Your task to perform on an android device: toggle location history Image 0: 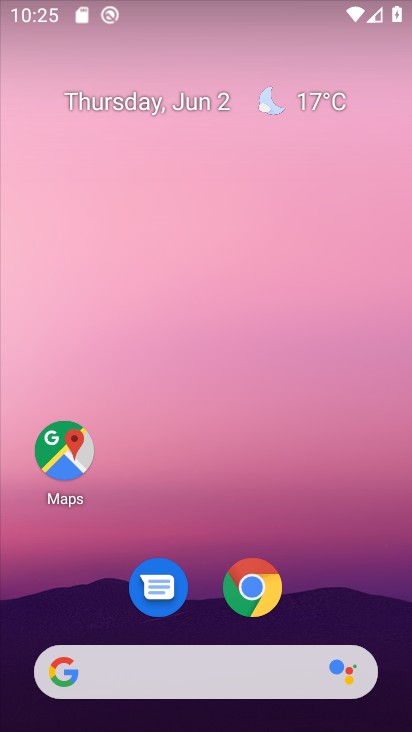
Step 0: drag from (381, 555) to (363, 161)
Your task to perform on an android device: toggle location history Image 1: 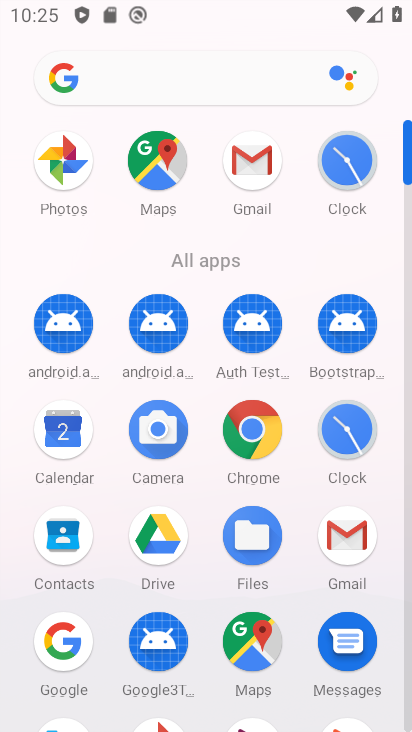
Step 1: drag from (304, 648) to (294, 374)
Your task to perform on an android device: toggle location history Image 2: 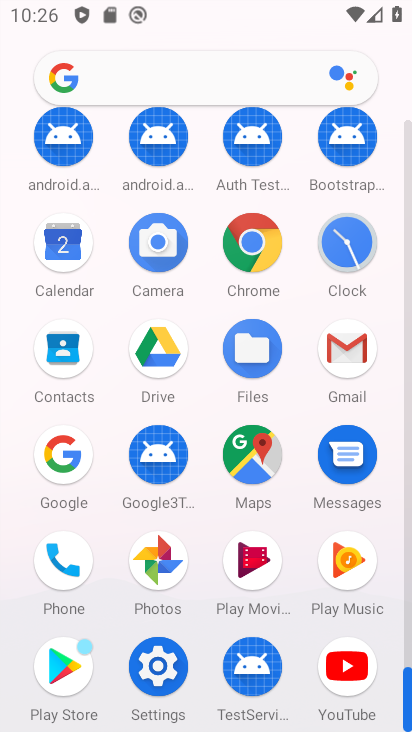
Step 2: click (167, 675)
Your task to perform on an android device: toggle location history Image 3: 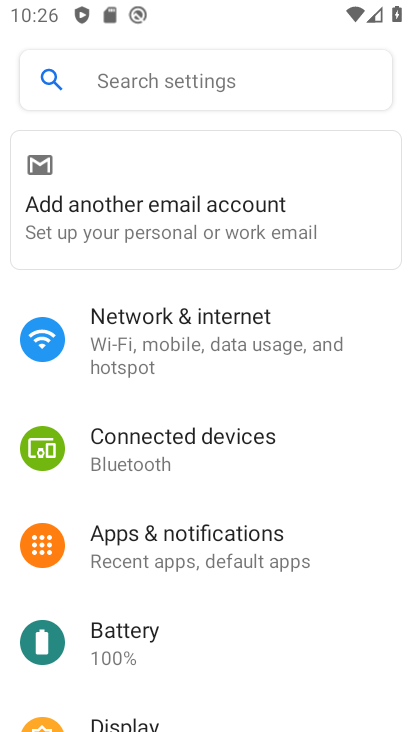
Step 3: drag from (246, 684) to (291, 365)
Your task to perform on an android device: toggle location history Image 4: 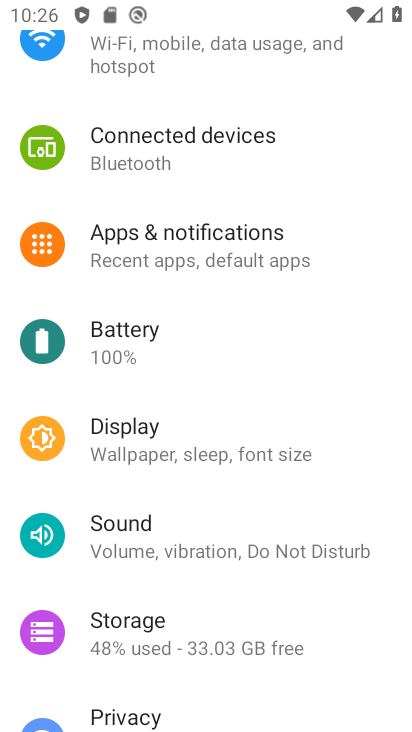
Step 4: drag from (265, 636) to (266, 378)
Your task to perform on an android device: toggle location history Image 5: 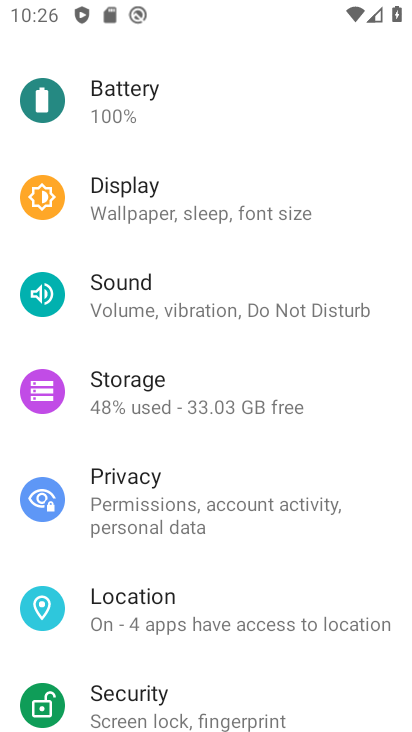
Step 5: click (219, 622)
Your task to perform on an android device: toggle location history Image 6: 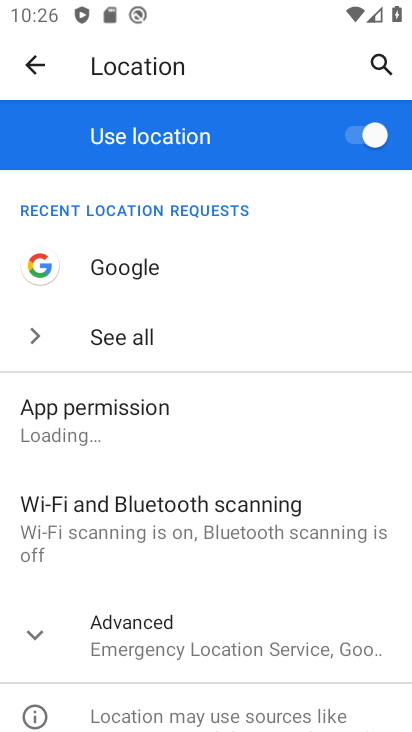
Step 6: drag from (269, 629) to (276, 333)
Your task to perform on an android device: toggle location history Image 7: 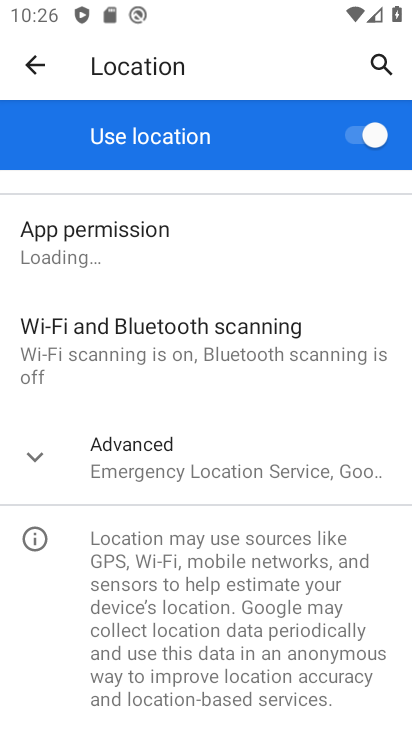
Step 7: drag from (265, 646) to (270, 328)
Your task to perform on an android device: toggle location history Image 8: 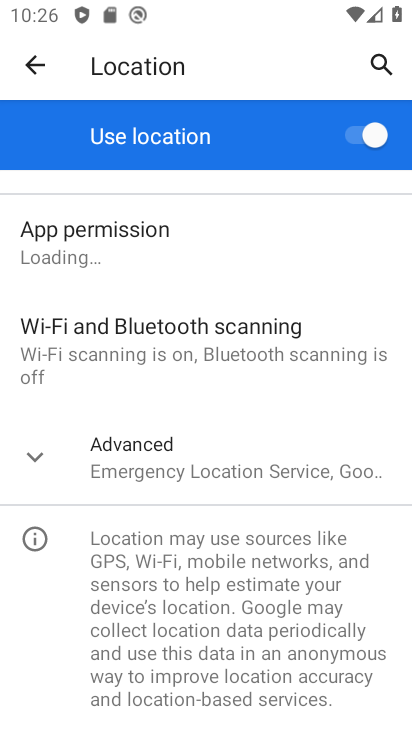
Step 8: click (226, 463)
Your task to perform on an android device: toggle location history Image 9: 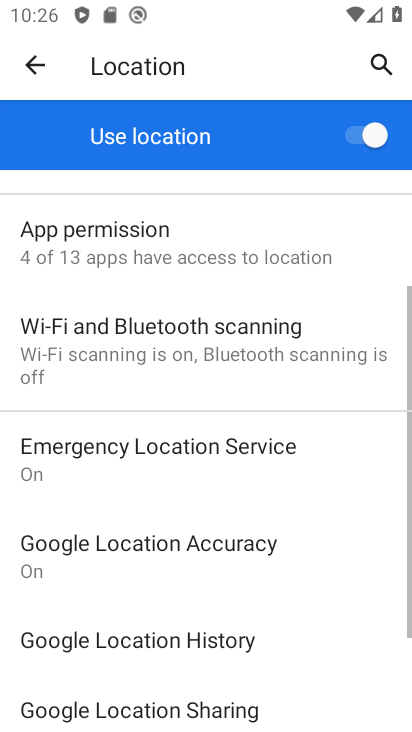
Step 9: click (233, 643)
Your task to perform on an android device: toggle location history Image 10: 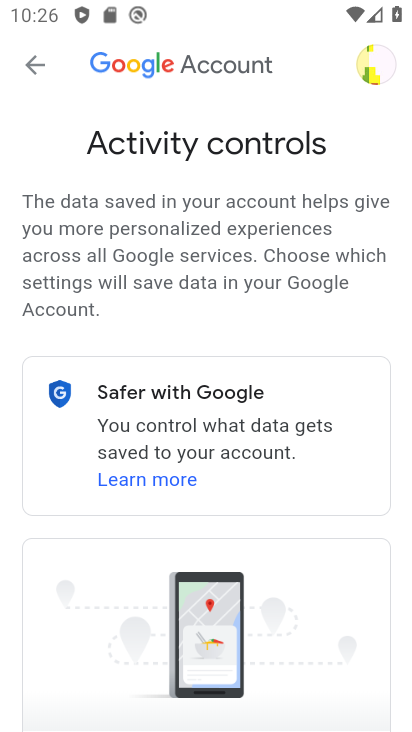
Step 10: task complete